Your task to perform on an android device: change your default location settings in chrome Image 0: 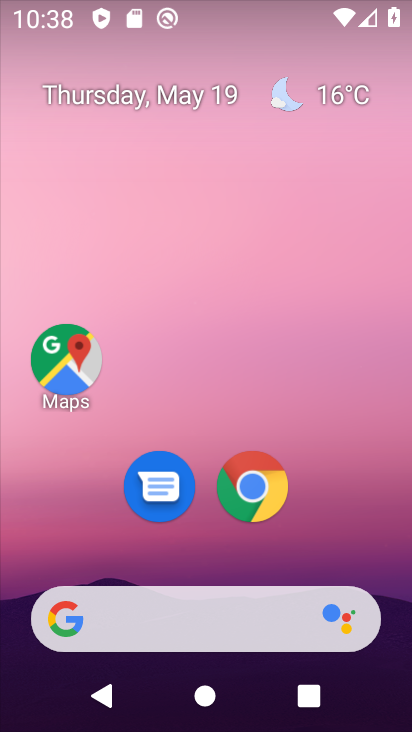
Step 0: click (296, 473)
Your task to perform on an android device: change your default location settings in chrome Image 1: 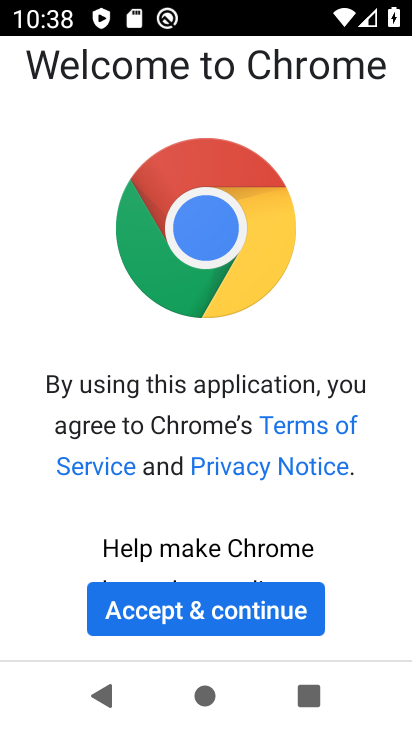
Step 1: click (245, 611)
Your task to perform on an android device: change your default location settings in chrome Image 2: 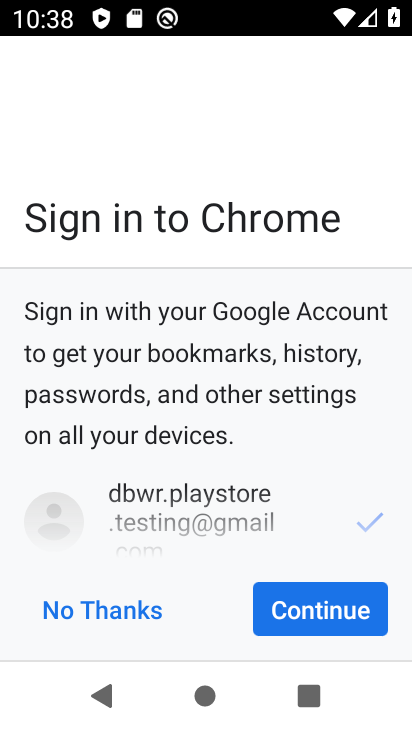
Step 2: click (285, 624)
Your task to perform on an android device: change your default location settings in chrome Image 3: 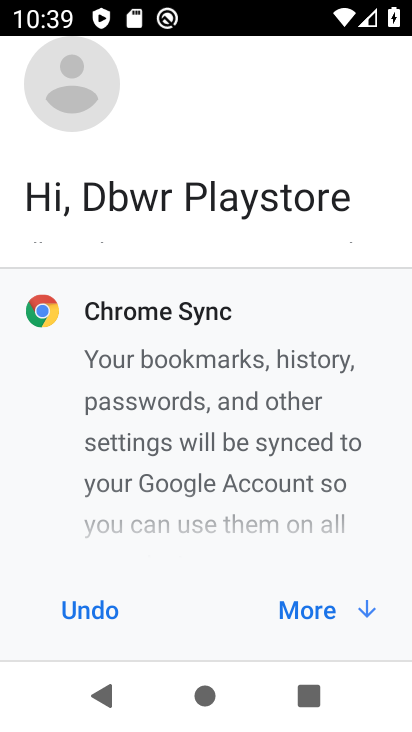
Step 3: click (330, 641)
Your task to perform on an android device: change your default location settings in chrome Image 4: 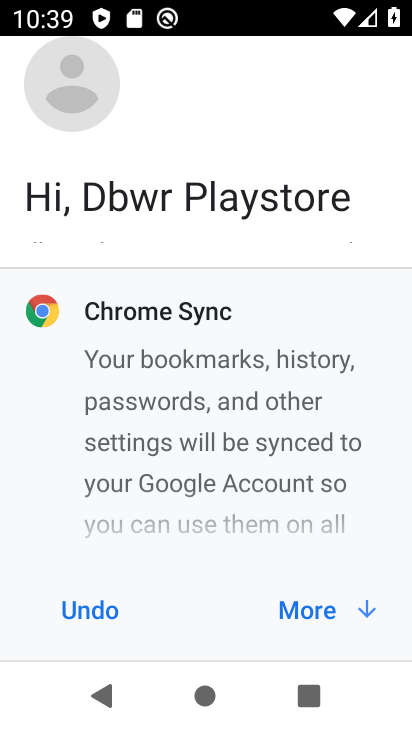
Step 4: click (344, 630)
Your task to perform on an android device: change your default location settings in chrome Image 5: 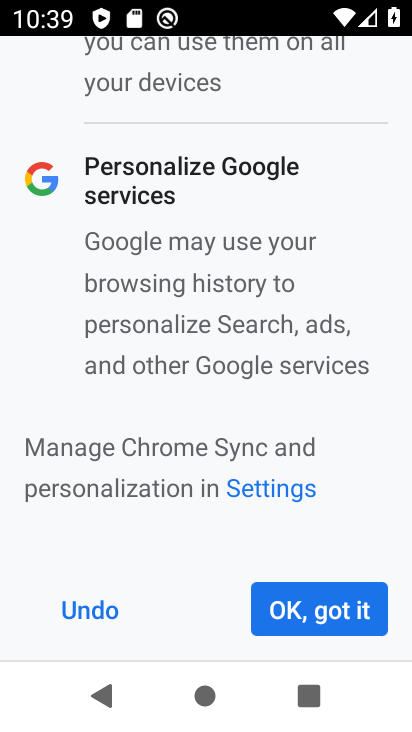
Step 5: click (344, 630)
Your task to perform on an android device: change your default location settings in chrome Image 6: 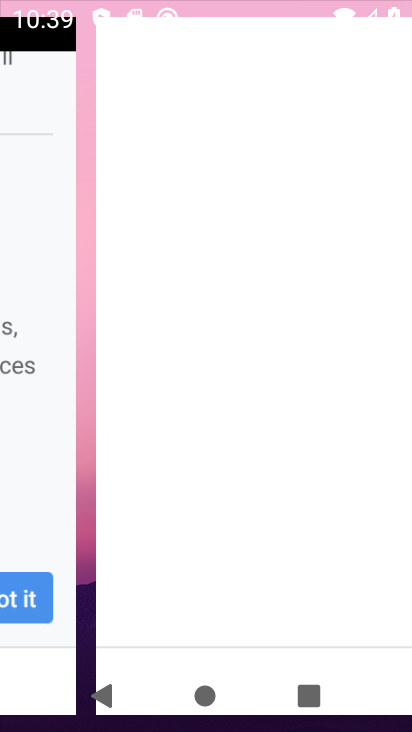
Step 6: click (344, 630)
Your task to perform on an android device: change your default location settings in chrome Image 7: 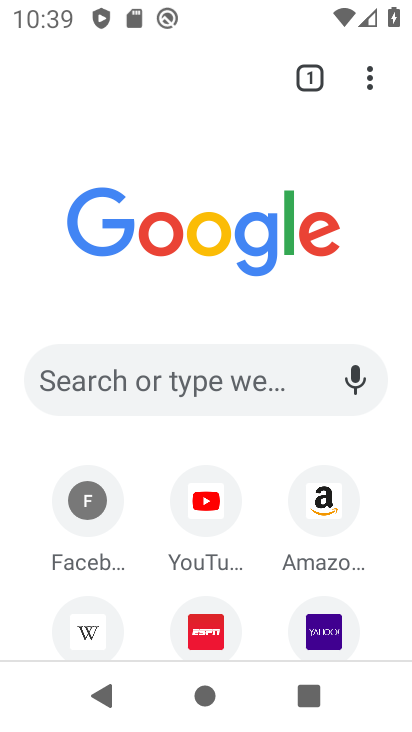
Step 7: click (365, 83)
Your task to perform on an android device: change your default location settings in chrome Image 8: 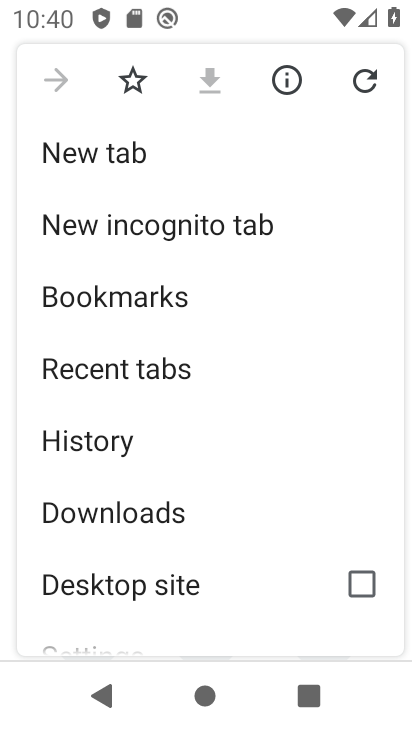
Step 8: task complete